Your task to perform on an android device: Go to Maps Image 0: 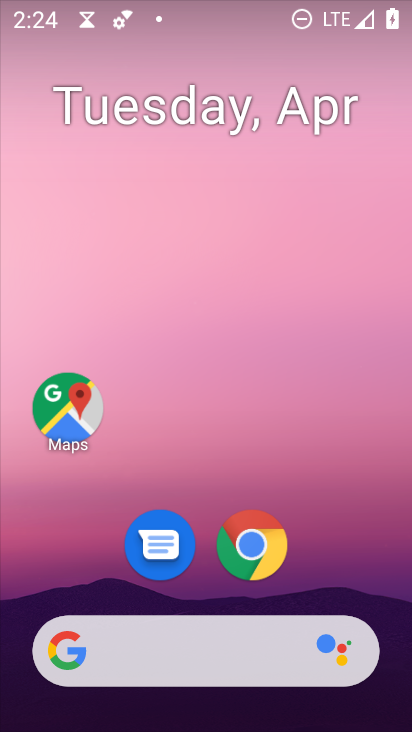
Step 0: drag from (382, 537) to (266, 47)
Your task to perform on an android device: Go to Maps Image 1: 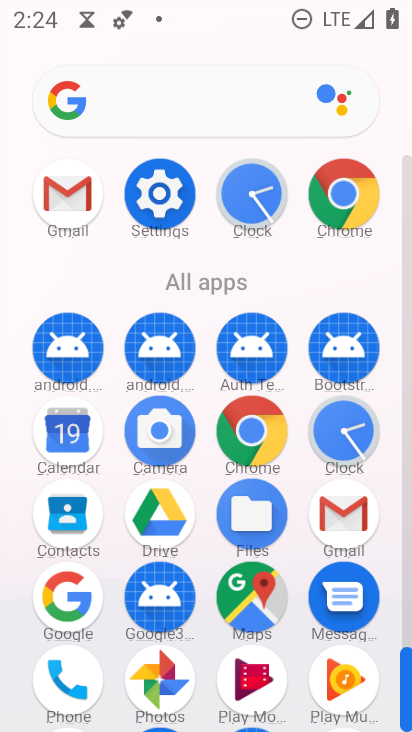
Step 1: click (268, 607)
Your task to perform on an android device: Go to Maps Image 2: 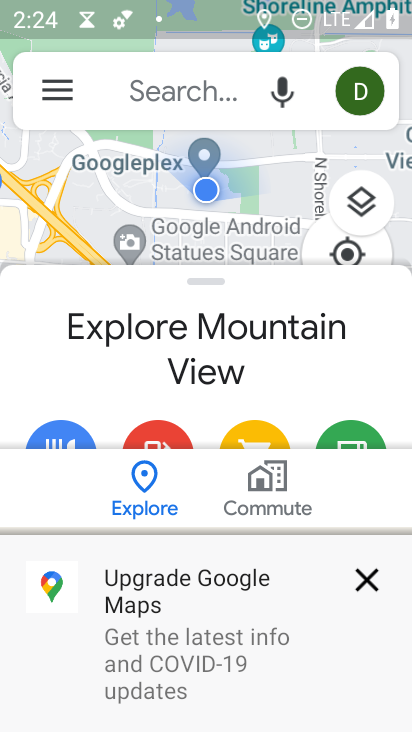
Step 2: task complete